Your task to perform on an android device: refresh tabs in the chrome app Image 0: 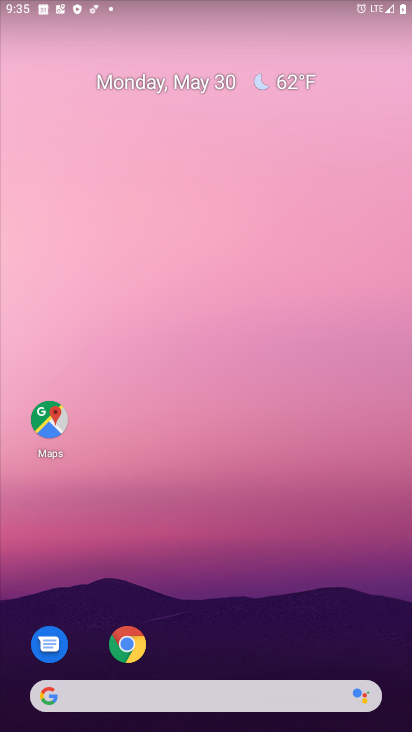
Step 0: click (127, 644)
Your task to perform on an android device: refresh tabs in the chrome app Image 1: 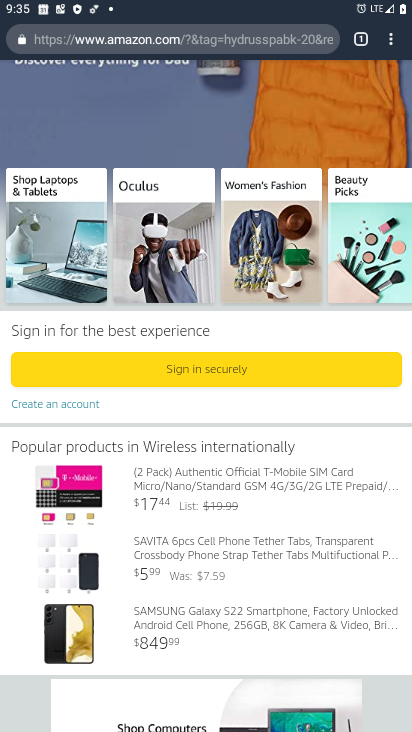
Step 1: click (391, 44)
Your task to perform on an android device: refresh tabs in the chrome app Image 2: 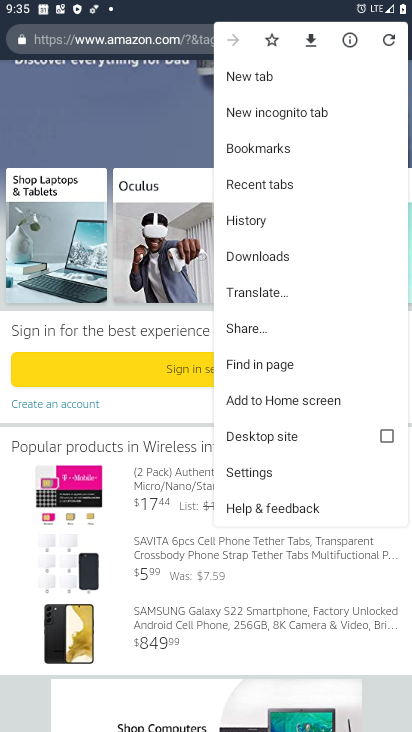
Step 2: click (386, 40)
Your task to perform on an android device: refresh tabs in the chrome app Image 3: 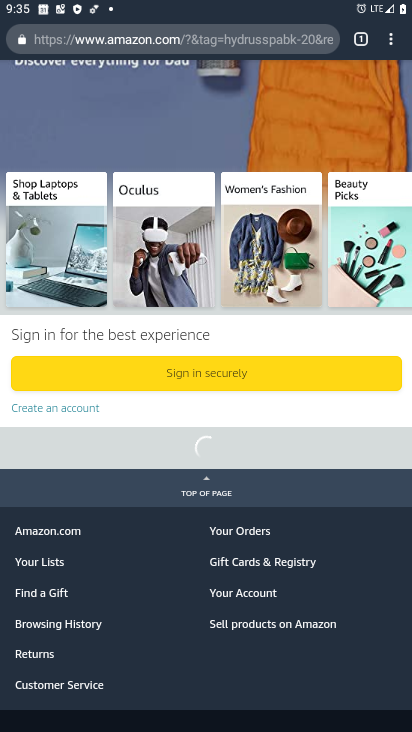
Step 3: task complete